Your task to perform on an android device: Open eBay Image 0: 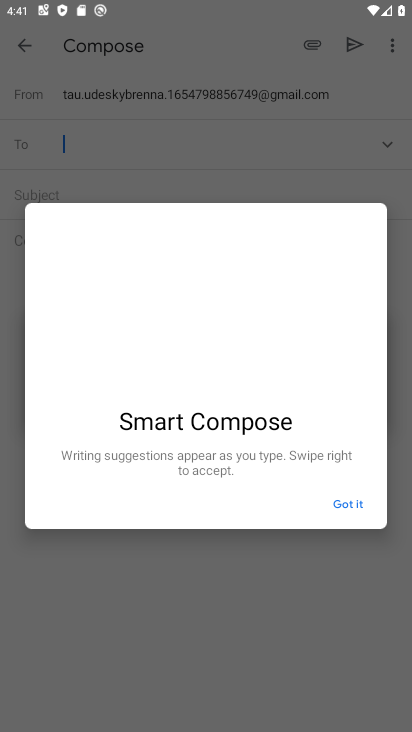
Step 0: press back button
Your task to perform on an android device: Open eBay Image 1: 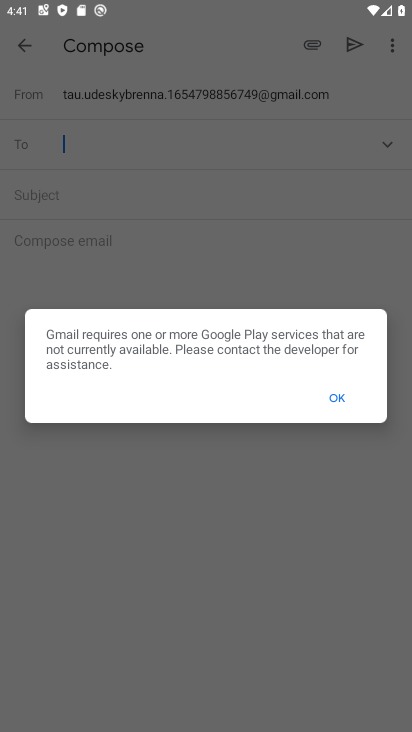
Step 1: press back button
Your task to perform on an android device: Open eBay Image 2: 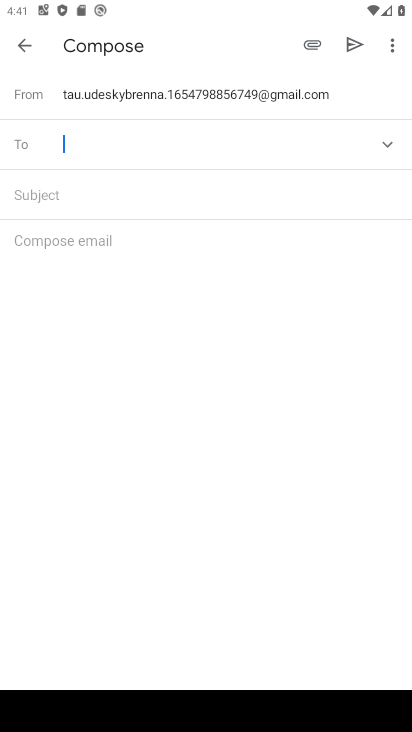
Step 2: press home button
Your task to perform on an android device: Open eBay Image 3: 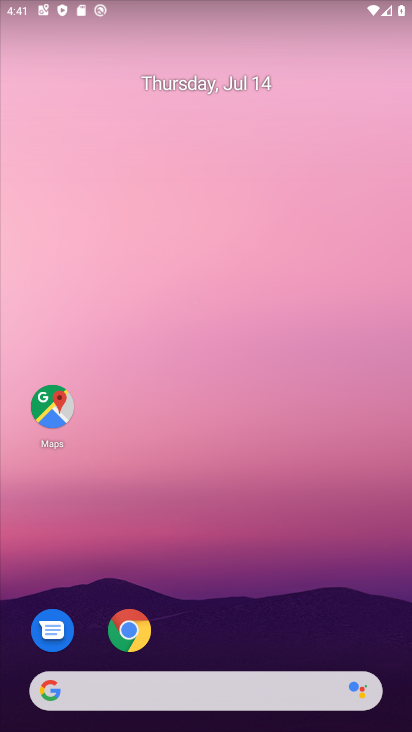
Step 3: click (133, 645)
Your task to perform on an android device: Open eBay Image 4: 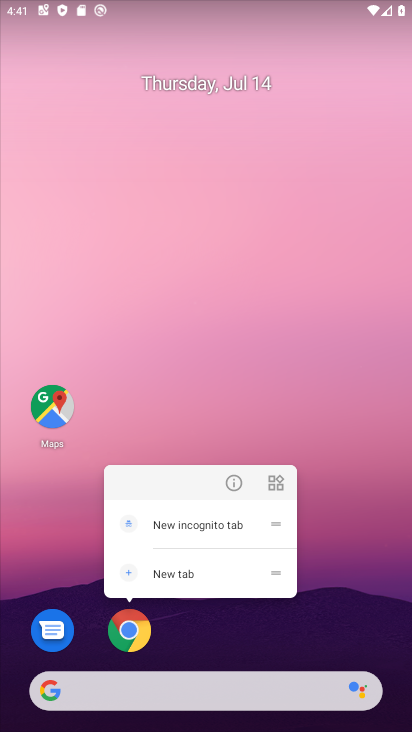
Step 4: click (121, 623)
Your task to perform on an android device: Open eBay Image 5: 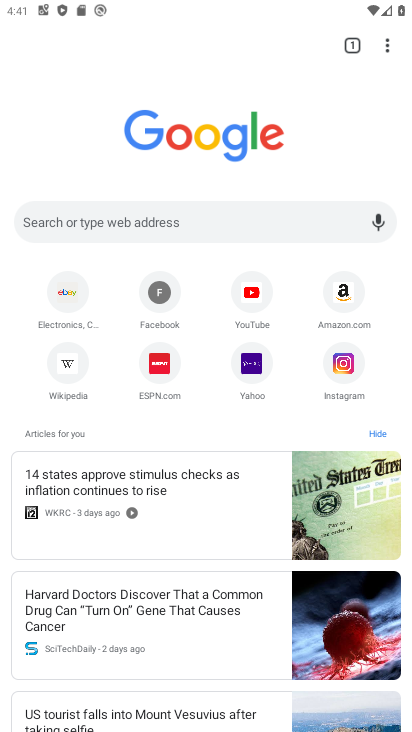
Step 5: click (69, 282)
Your task to perform on an android device: Open eBay Image 6: 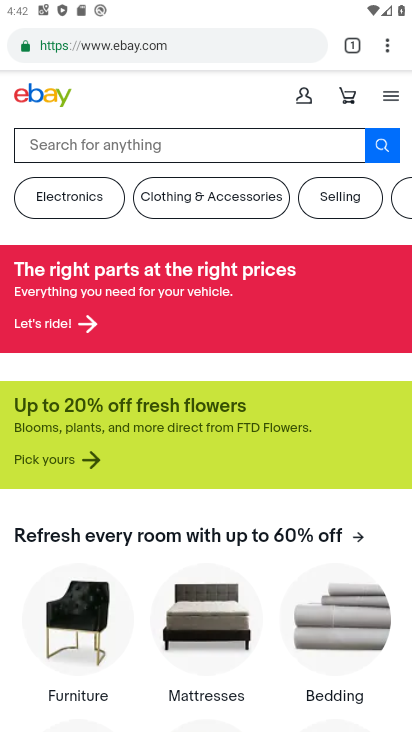
Step 6: task complete